Your task to perform on an android device: Show me the alarms in the clock app Image 0: 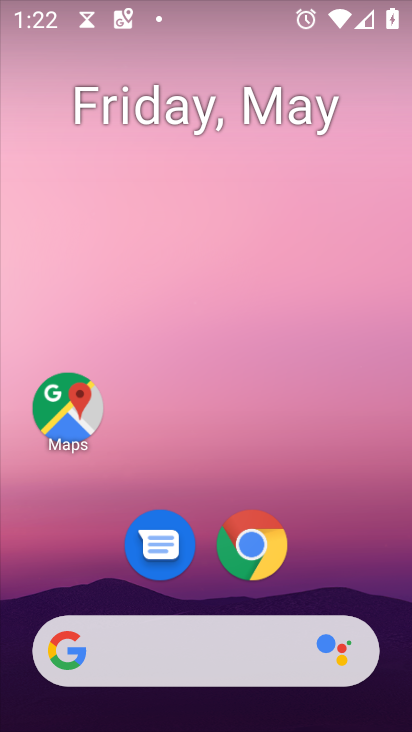
Step 0: drag from (331, 555) to (265, 135)
Your task to perform on an android device: Show me the alarms in the clock app Image 1: 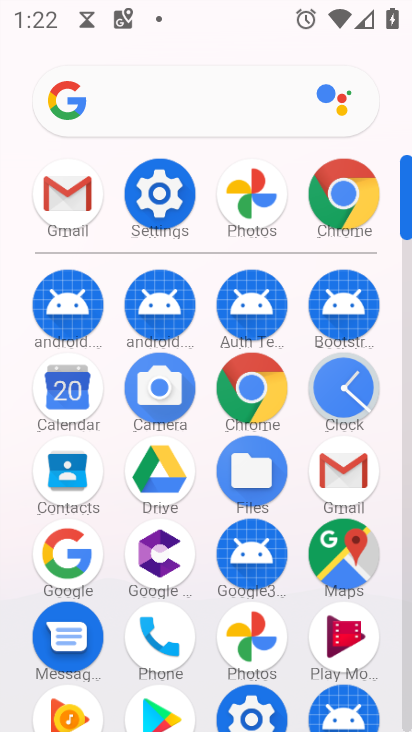
Step 1: click (333, 382)
Your task to perform on an android device: Show me the alarms in the clock app Image 2: 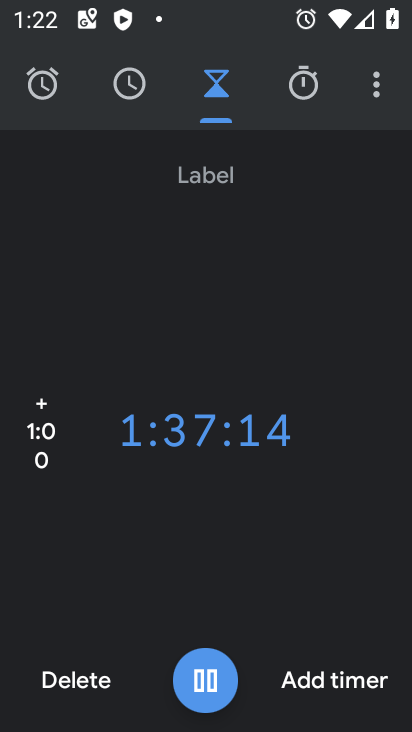
Step 2: click (48, 96)
Your task to perform on an android device: Show me the alarms in the clock app Image 3: 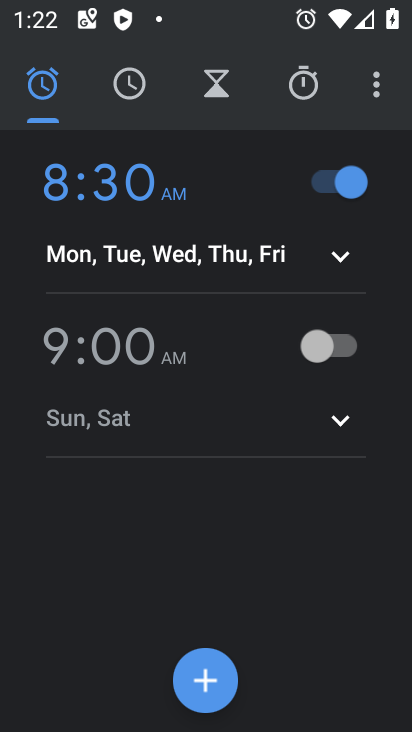
Step 3: task complete